Your task to perform on an android device: Open calendar and show me the second week of next month Image 0: 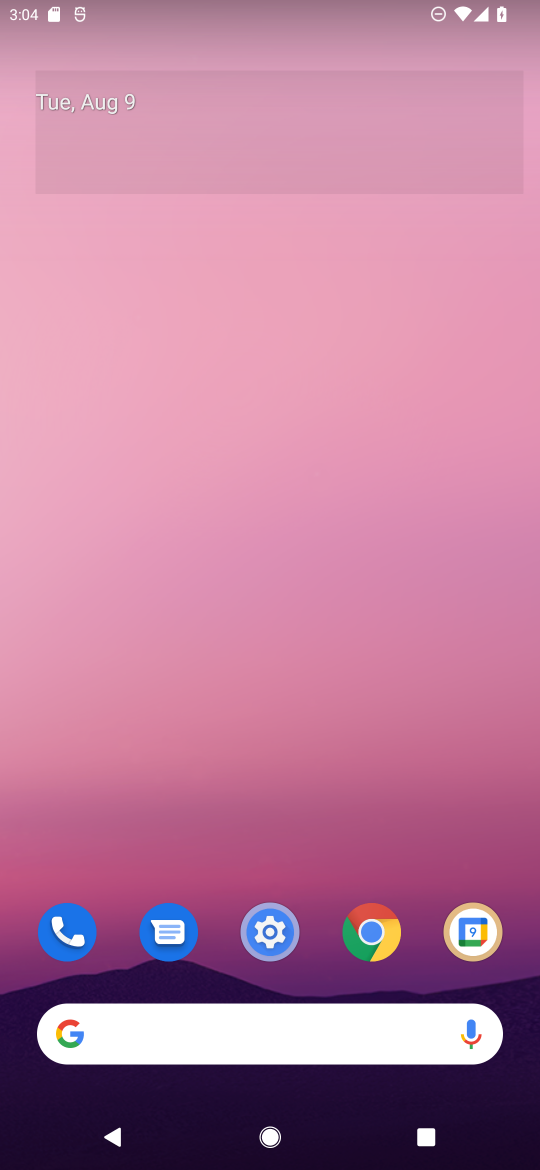
Step 0: click (477, 939)
Your task to perform on an android device: Open calendar and show me the second week of next month Image 1: 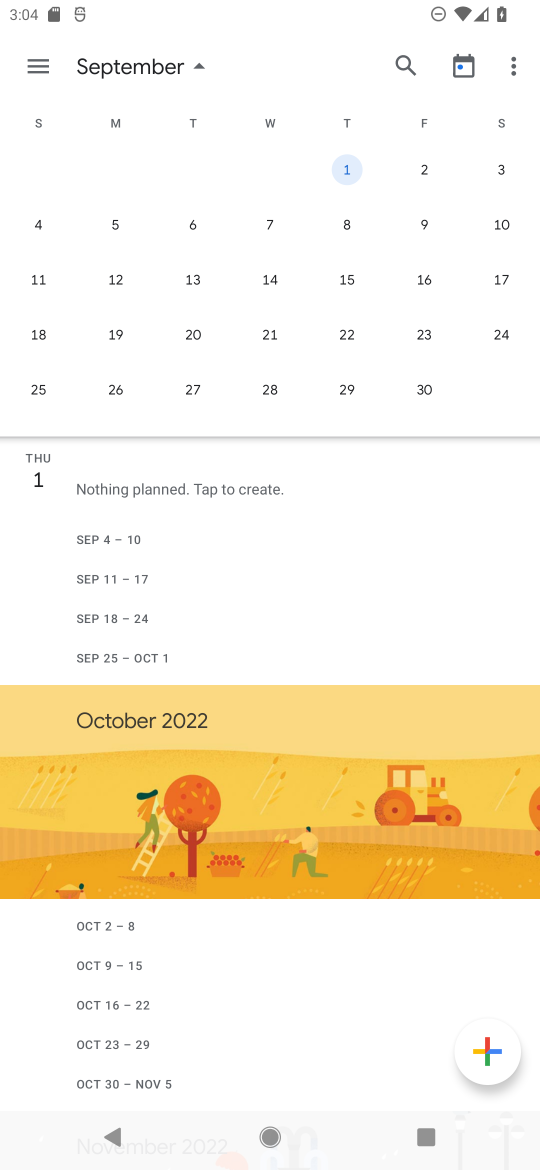
Step 1: click (24, 176)
Your task to perform on an android device: Open calendar and show me the second week of next month Image 2: 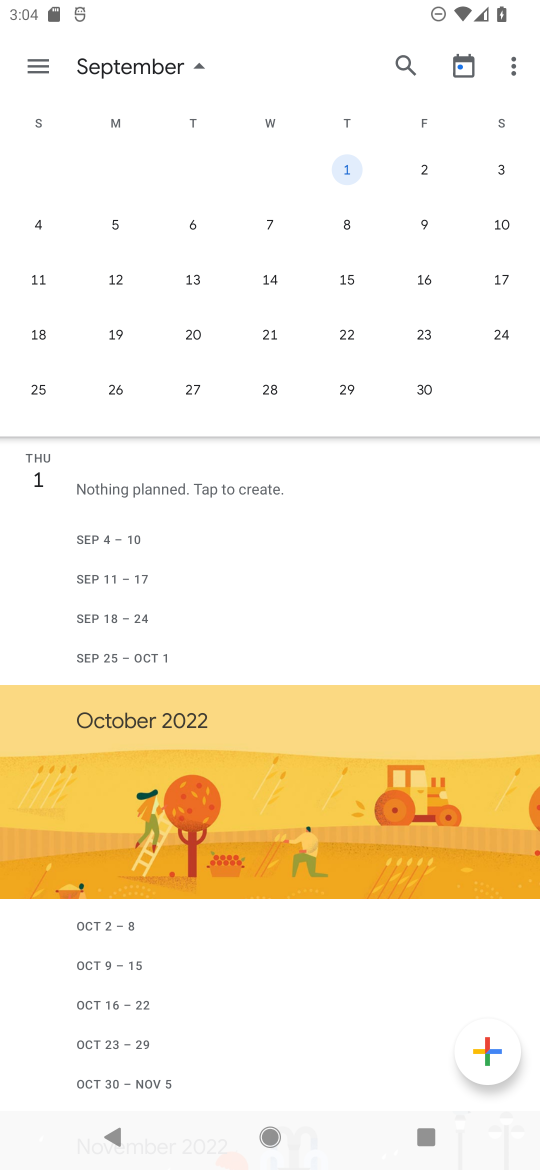
Step 2: click (121, 240)
Your task to perform on an android device: Open calendar and show me the second week of next month Image 3: 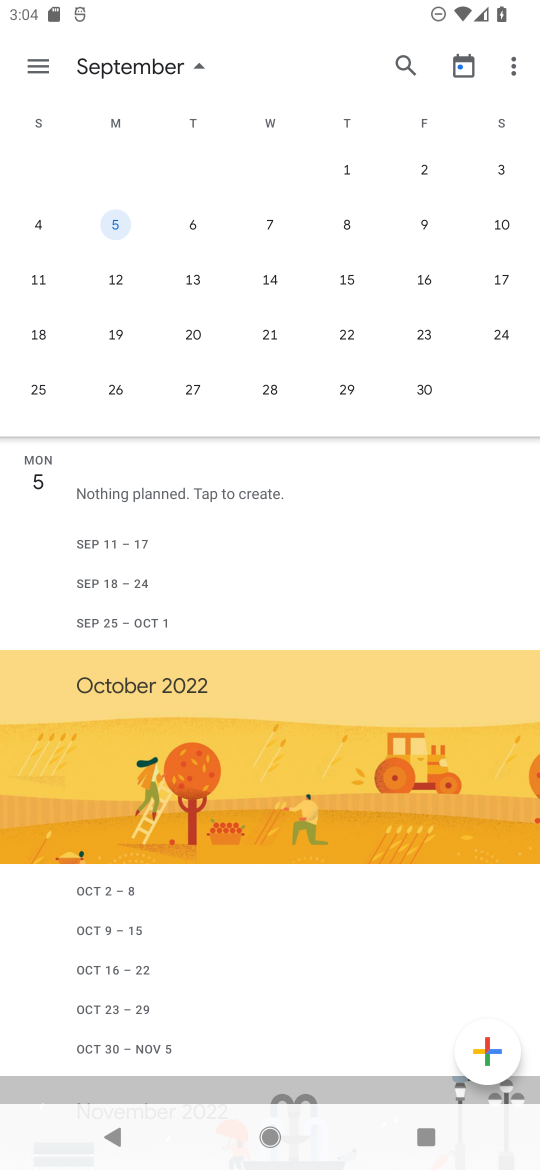
Step 3: task complete